Your task to perform on an android device: Go to calendar. Show me events next week Image 0: 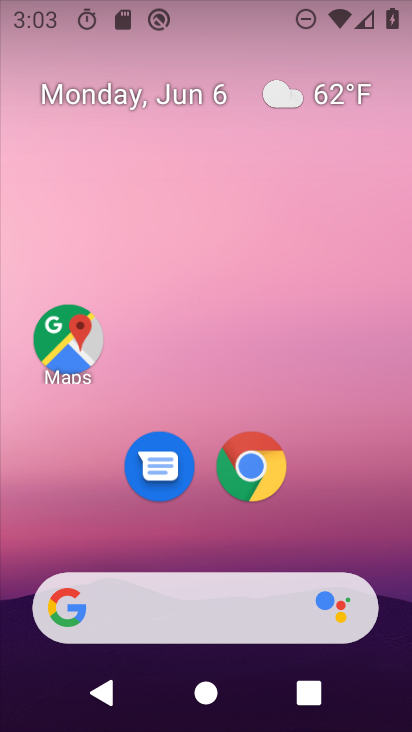
Step 0: drag from (193, 547) to (377, 249)
Your task to perform on an android device: Go to calendar. Show me events next week Image 1: 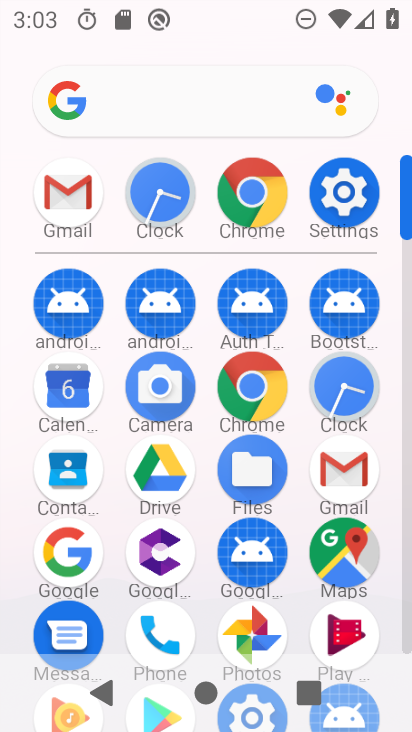
Step 1: click (63, 382)
Your task to perform on an android device: Go to calendar. Show me events next week Image 2: 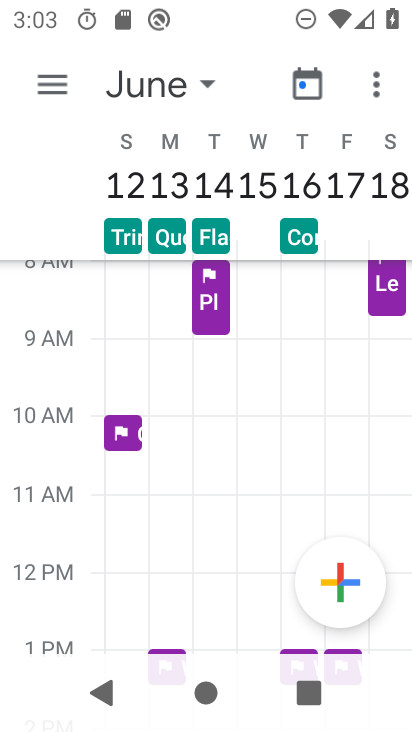
Step 2: task complete